Your task to perform on an android device: stop showing notifications on the lock screen Image 0: 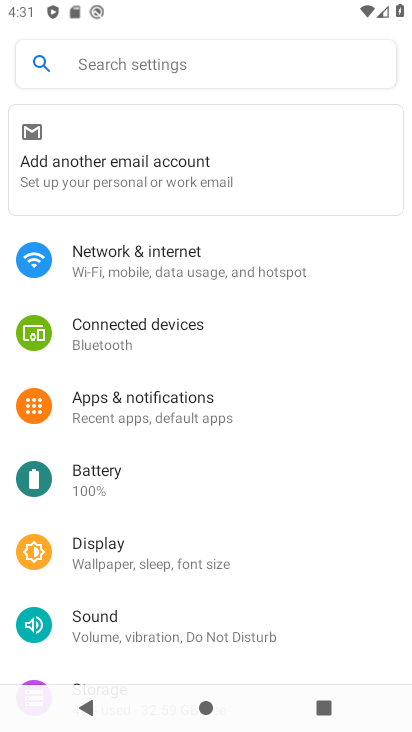
Step 0: press back button
Your task to perform on an android device: stop showing notifications on the lock screen Image 1: 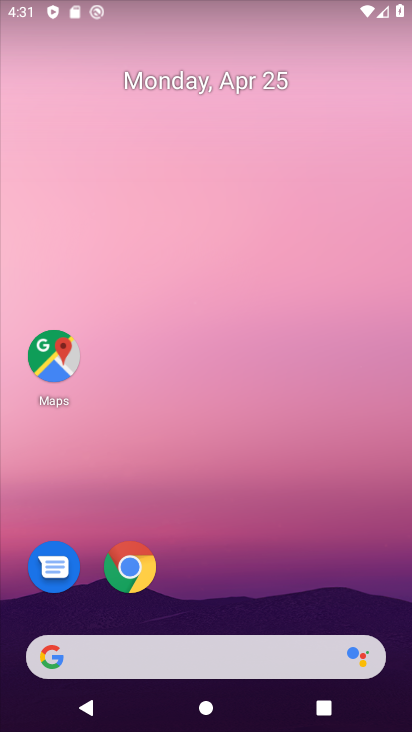
Step 1: drag from (203, 581) to (286, 94)
Your task to perform on an android device: stop showing notifications on the lock screen Image 2: 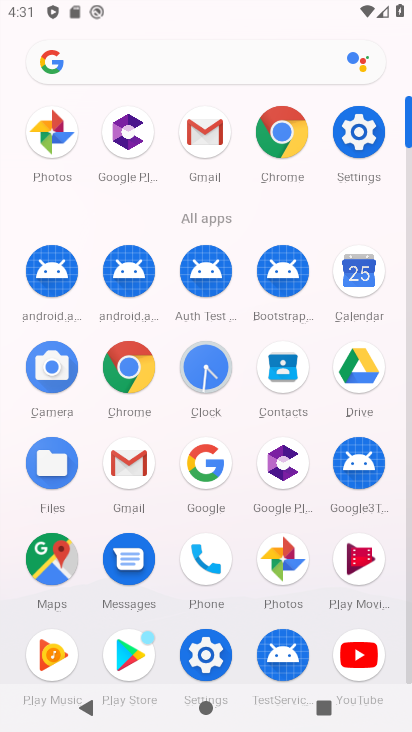
Step 2: click (361, 128)
Your task to perform on an android device: stop showing notifications on the lock screen Image 3: 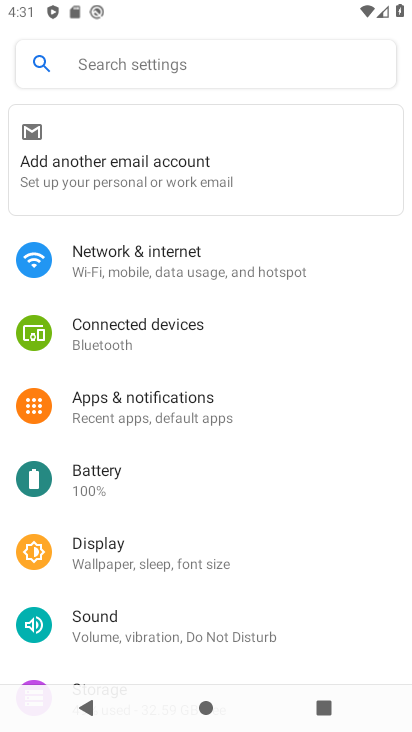
Step 3: click (155, 406)
Your task to perform on an android device: stop showing notifications on the lock screen Image 4: 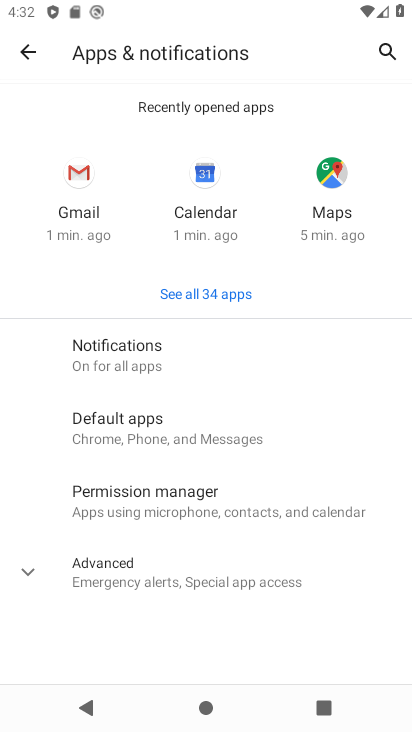
Step 4: click (156, 350)
Your task to perform on an android device: stop showing notifications on the lock screen Image 5: 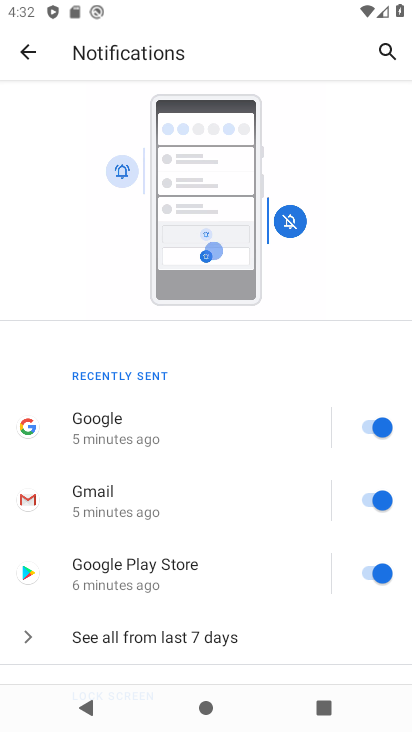
Step 5: drag from (138, 594) to (227, 49)
Your task to perform on an android device: stop showing notifications on the lock screen Image 6: 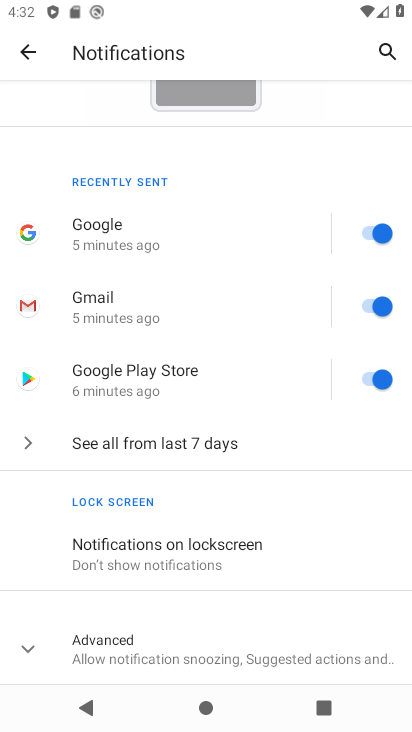
Step 6: click (118, 548)
Your task to perform on an android device: stop showing notifications on the lock screen Image 7: 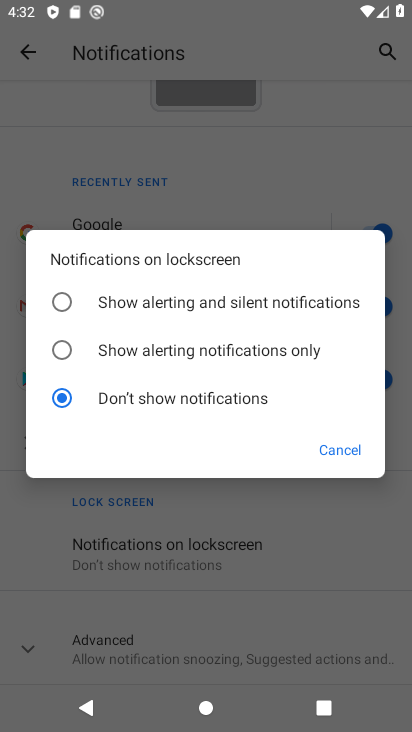
Step 7: task complete